Your task to perform on an android device: Clear the cart on walmart.com. Image 0: 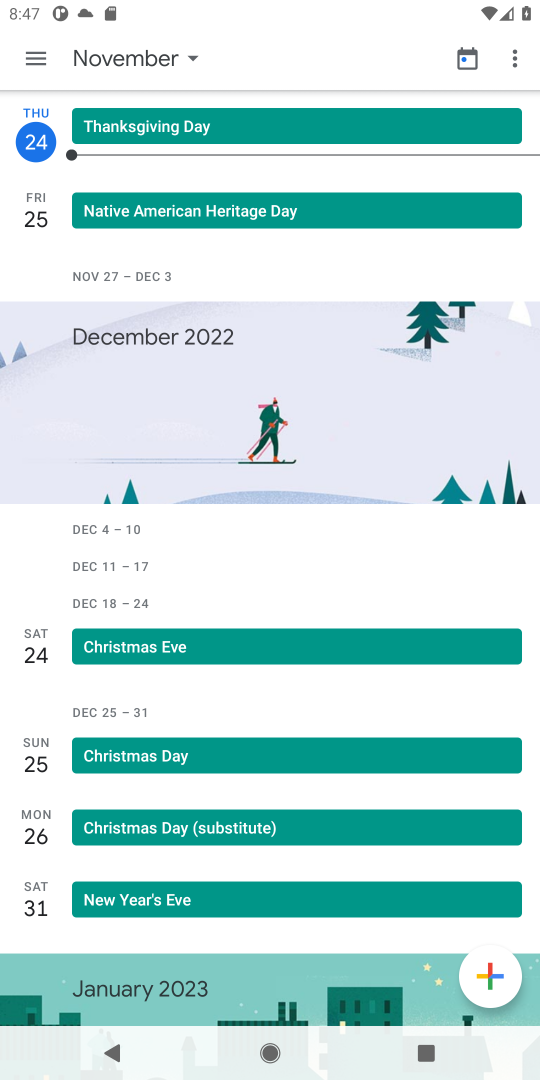
Step 0: press home button
Your task to perform on an android device: Clear the cart on walmart.com. Image 1: 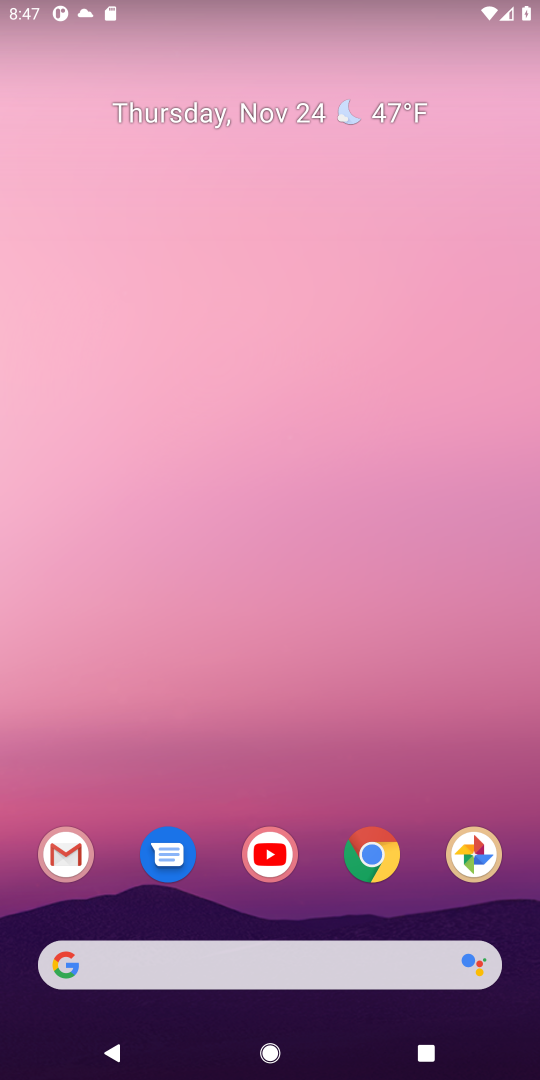
Step 1: click (378, 862)
Your task to perform on an android device: Clear the cart on walmart.com. Image 2: 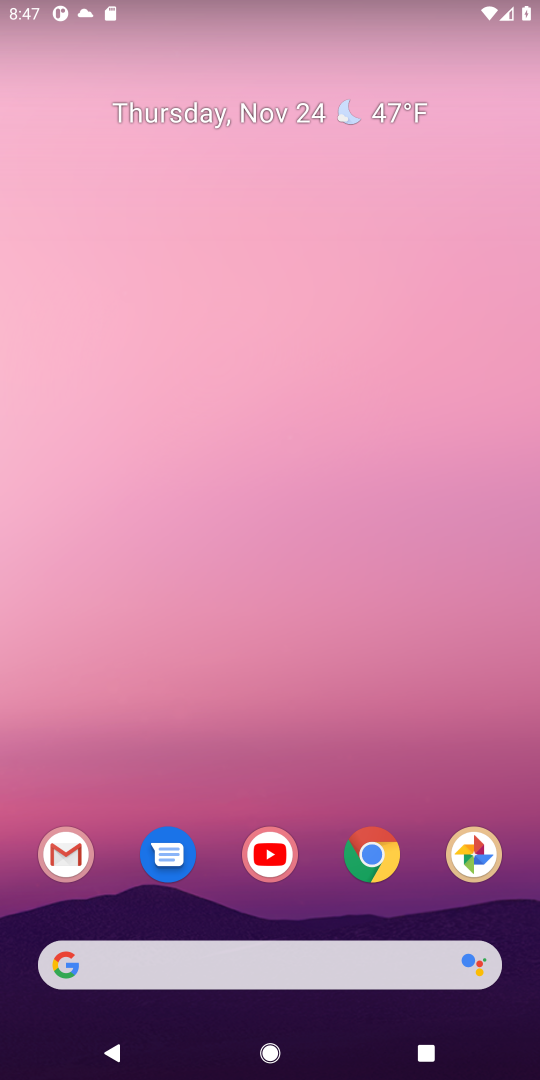
Step 2: click (378, 862)
Your task to perform on an android device: Clear the cart on walmart.com. Image 3: 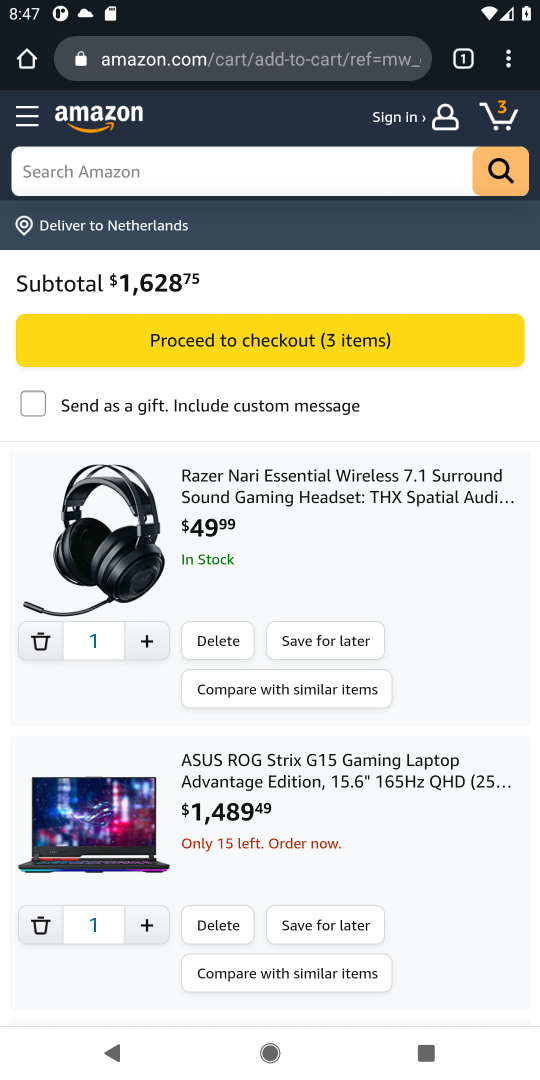
Step 3: click (201, 57)
Your task to perform on an android device: Clear the cart on walmart.com. Image 4: 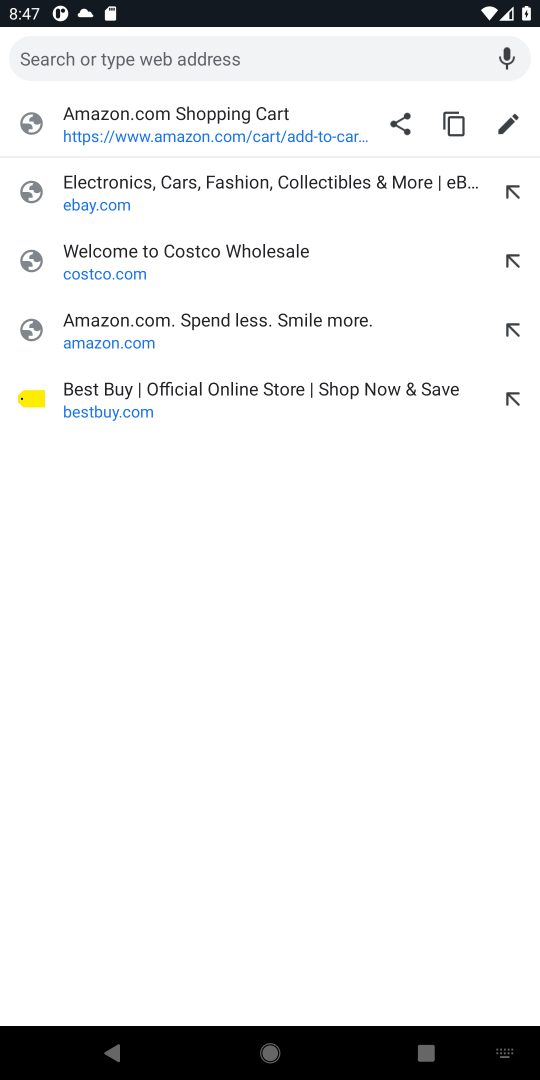
Step 4: type "walmart.com"
Your task to perform on an android device: Clear the cart on walmart.com. Image 5: 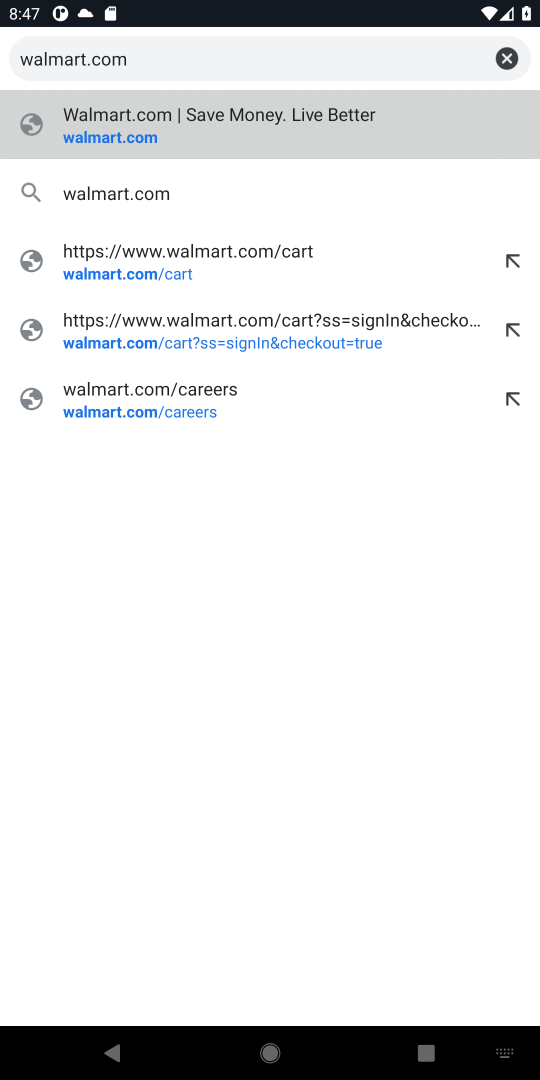
Step 5: click (101, 146)
Your task to perform on an android device: Clear the cart on walmart.com. Image 6: 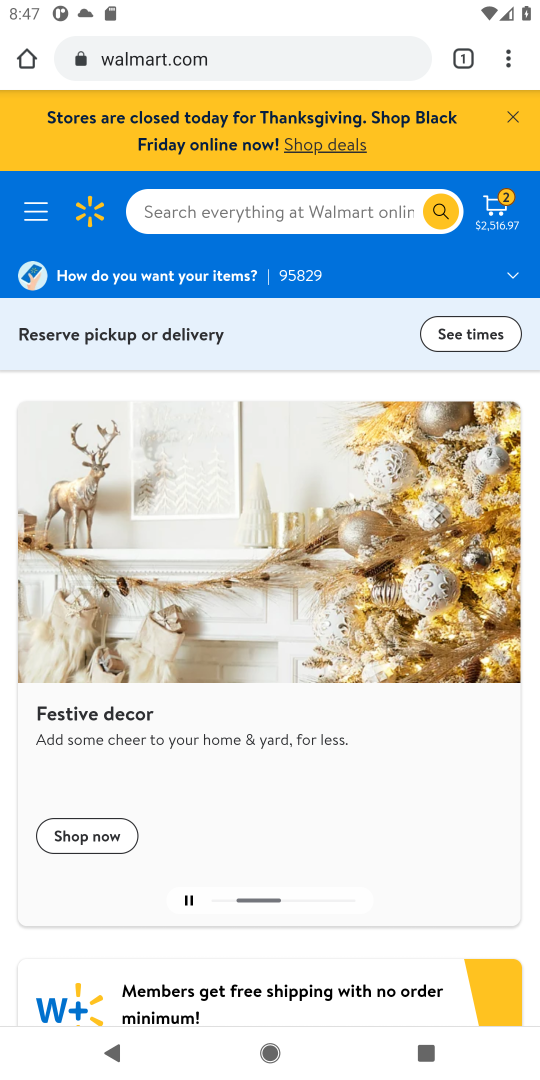
Step 6: click (500, 215)
Your task to perform on an android device: Clear the cart on walmart.com. Image 7: 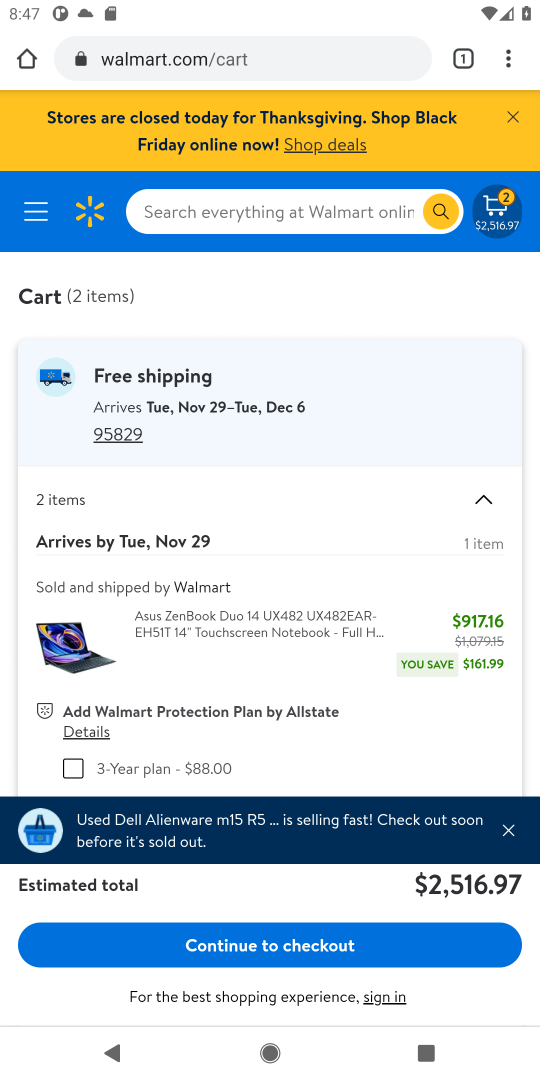
Step 7: drag from (302, 519) to (323, 306)
Your task to perform on an android device: Clear the cart on walmart.com. Image 8: 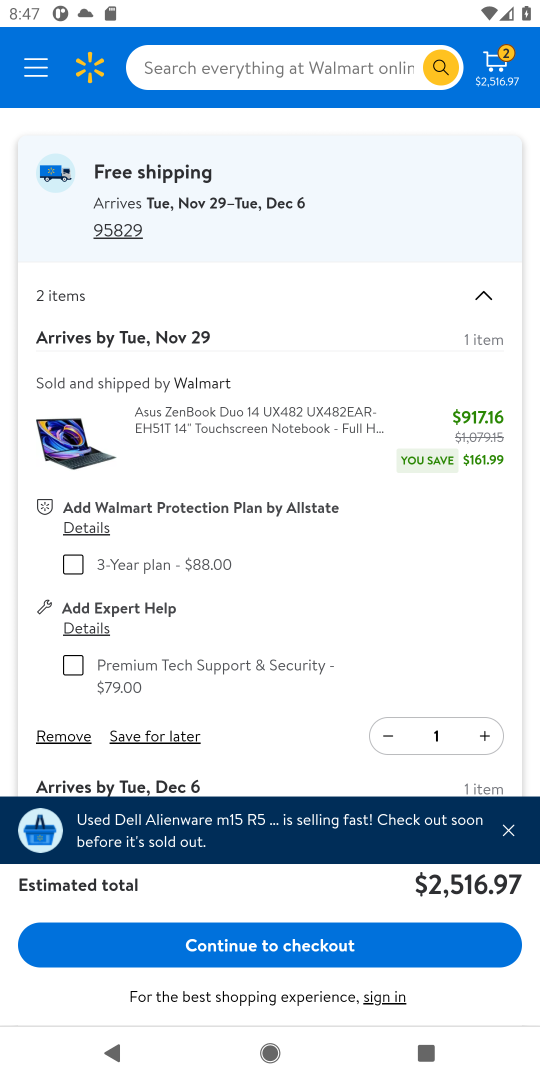
Step 8: drag from (223, 638) to (263, 450)
Your task to perform on an android device: Clear the cart on walmart.com. Image 9: 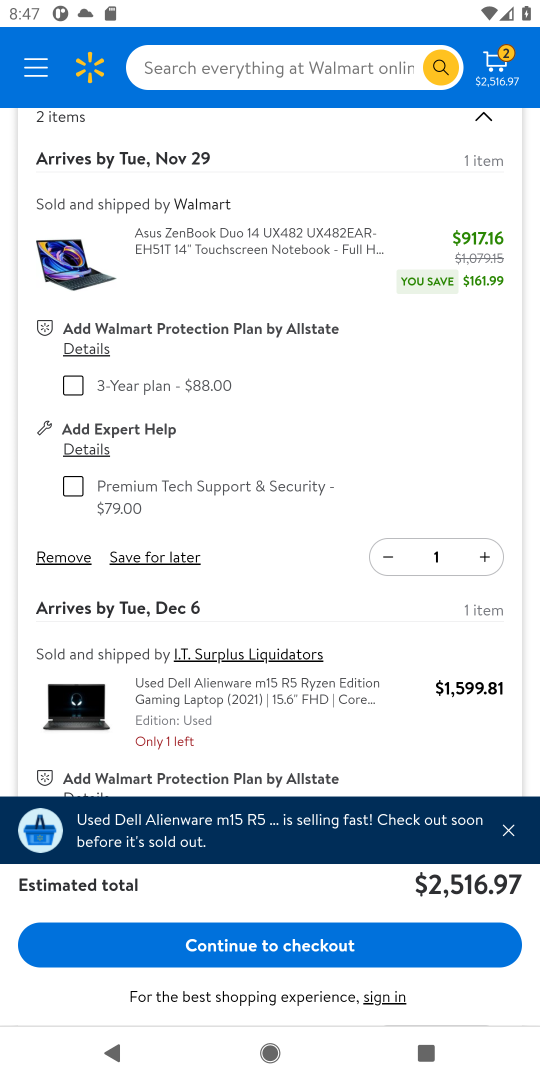
Step 9: click (57, 565)
Your task to perform on an android device: Clear the cart on walmart.com. Image 10: 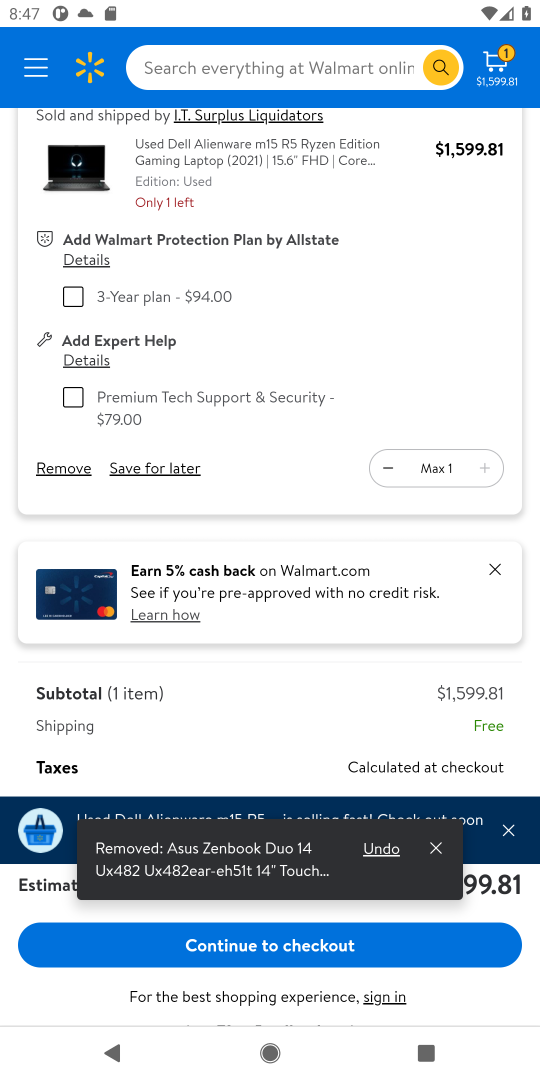
Step 10: click (57, 475)
Your task to perform on an android device: Clear the cart on walmart.com. Image 11: 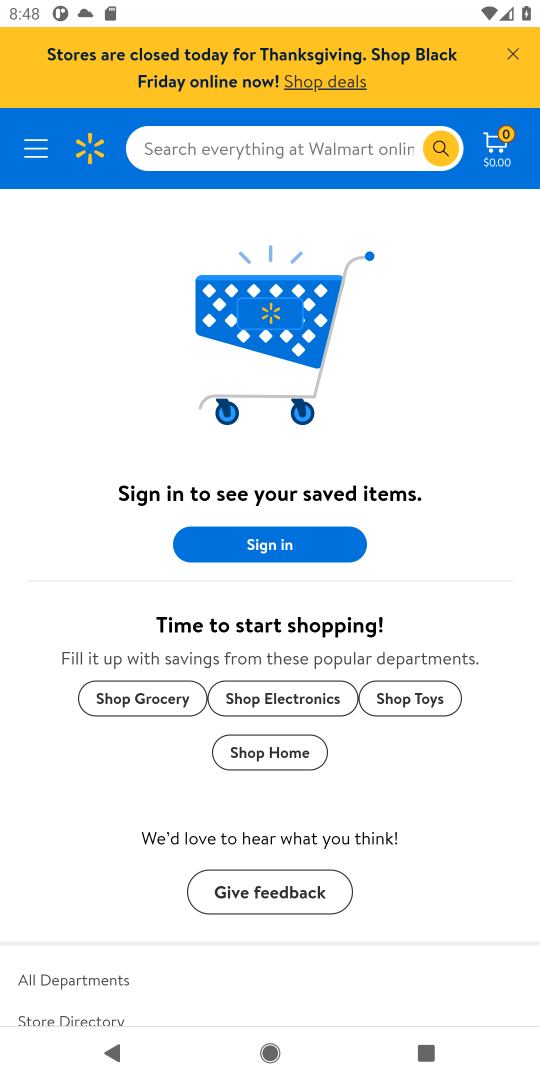
Step 11: task complete